Your task to perform on an android device: turn on javascript in the chrome app Image 0: 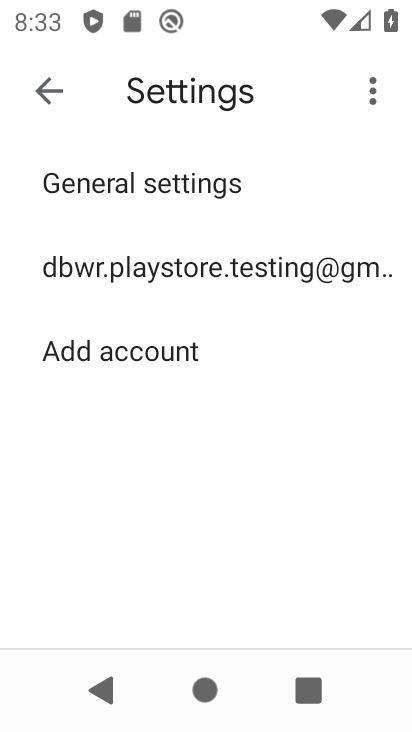
Step 0: press home button
Your task to perform on an android device: turn on javascript in the chrome app Image 1: 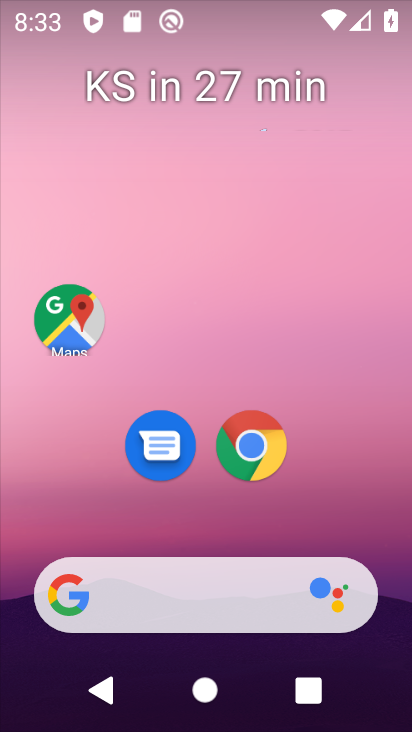
Step 1: click (247, 457)
Your task to perform on an android device: turn on javascript in the chrome app Image 2: 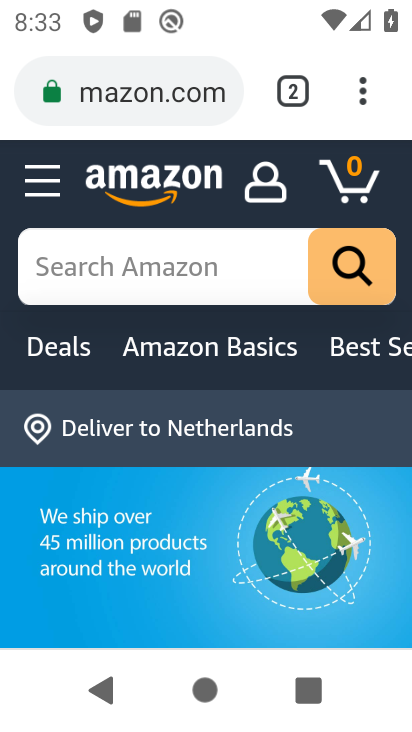
Step 2: click (364, 102)
Your task to perform on an android device: turn on javascript in the chrome app Image 3: 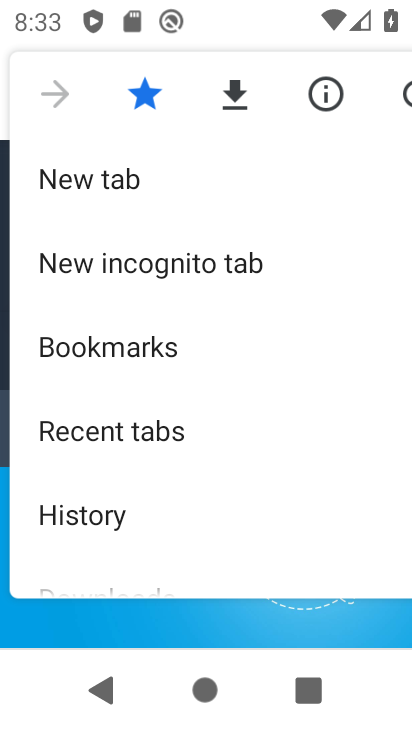
Step 3: drag from (200, 457) to (219, 96)
Your task to perform on an android device: turn on javascript in the chrome app Image 4: 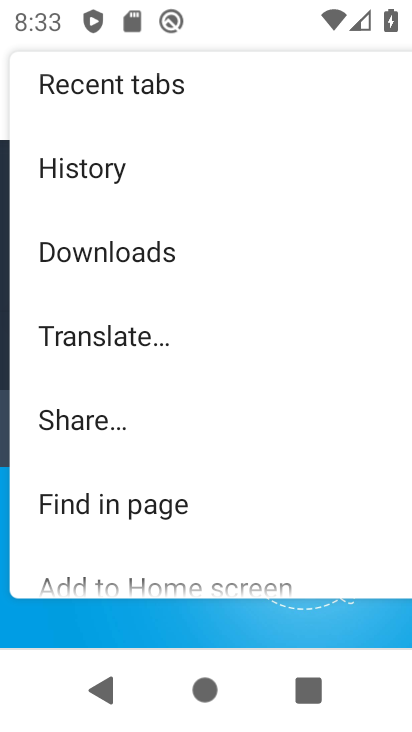
Step 4: drag from (186, 440) to (239, 74)
Your task to perform on an android device: turn on javascript in the chrome app Image 5: 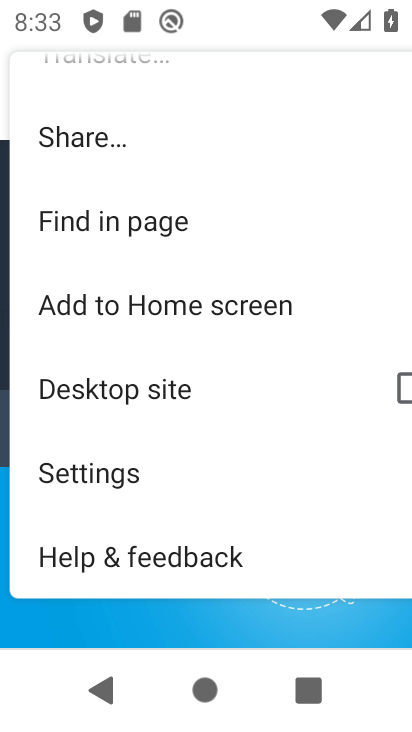
Step 5: click (99, 486)
Your task to perform on an android device: turn on javascript in the chrome app Image 6: 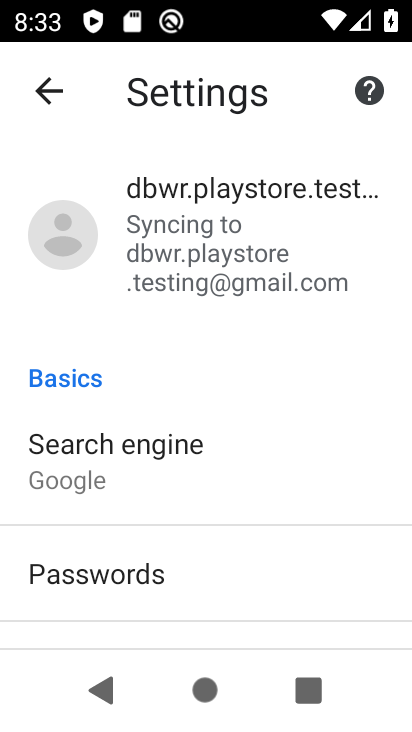
Step 6: drag from (191, 549) to (245, 173)
Your task to perform on an android device: turn on javascript in the chrome app Image 7: 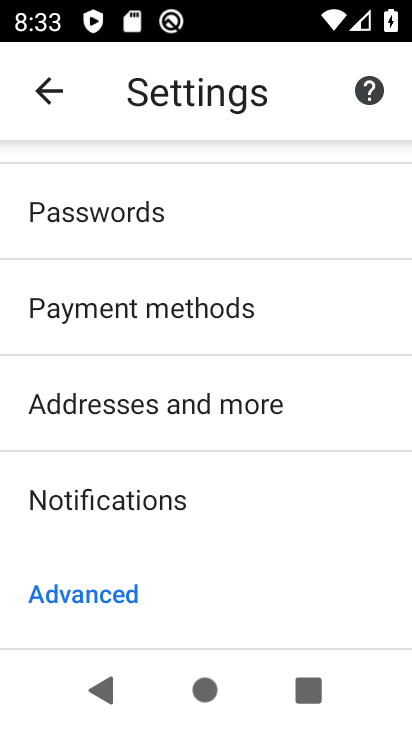
Step 7: drag from (266, 537) to (319, 251)
Your task to perform on an android device: turn on javascript in the chrome app Image 8: 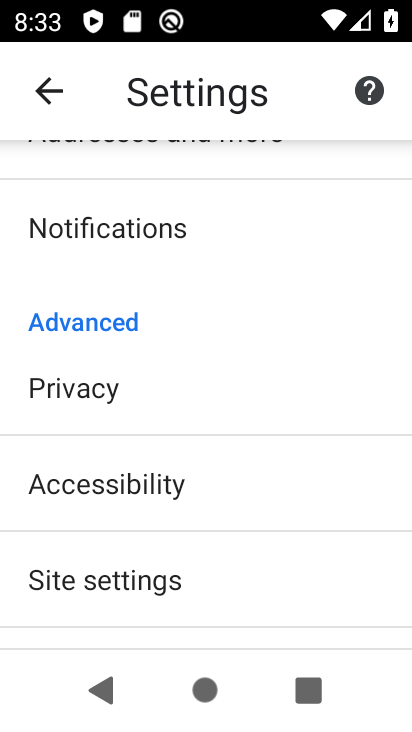
Step 8: drag from (230, 547) to (287, 219)
Your task to perform on an android device: turn on javascript in the chrome app Image 9: 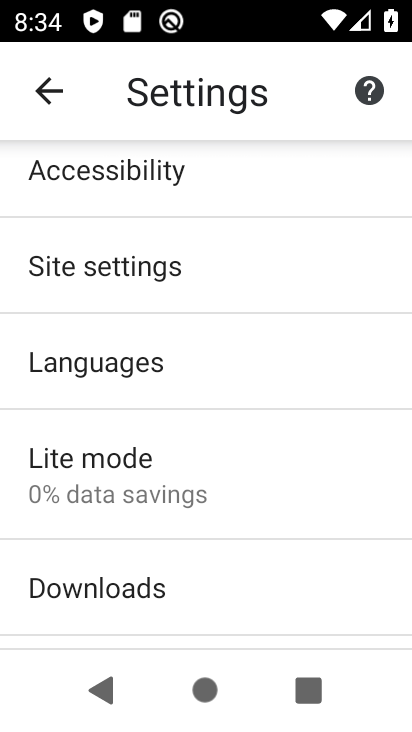
Step 9: click (145, 275)
Your task to perform on an android device: turn on javascript in the chrome app Image 10: 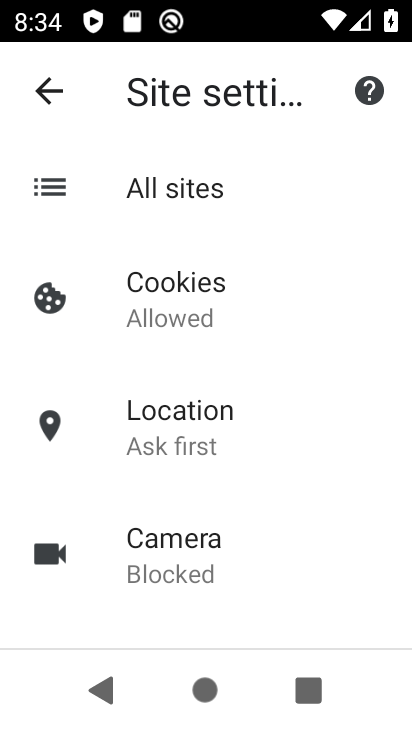
Step 10: drag from (211, 514) to (264, 328)
Your task to perform on an android device: turn on javascript in the chrome app Image 11: 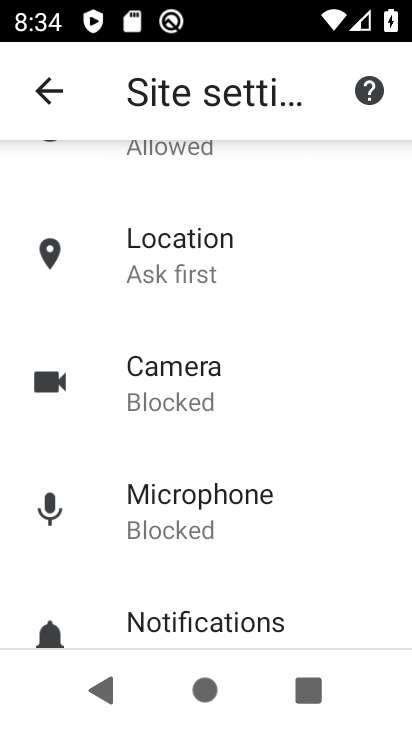
Step 11: drag from (245, 574) to (290, 222)
Your task to perform on an android device: turn on javascript in the chrome app Image 12: 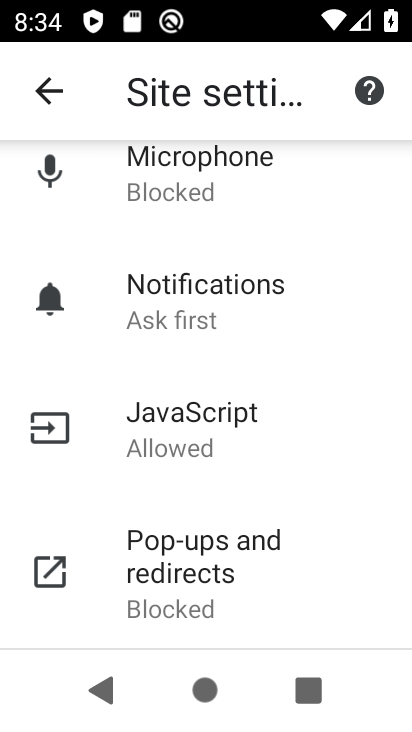
Step 12: drag from (252, 568) to (268, 319)
Your task to perform on an android device: turn on javascript in the chrome app Image 13: 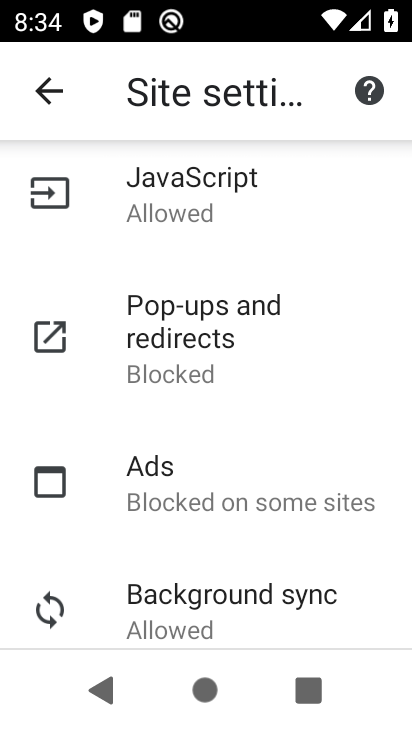
Step 13: click (193, 213)
Your task to perform on an android device: turn on javascript in the chrome app Image 14: 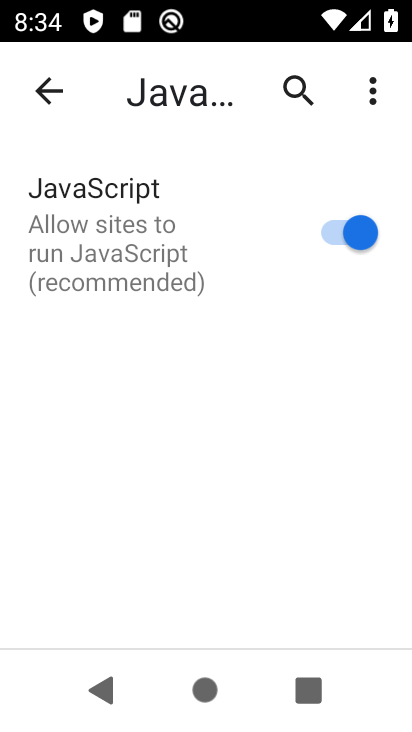
Step 14: task complete